Your task to perform on an android device: Google the capital of Uruguay Image 0: 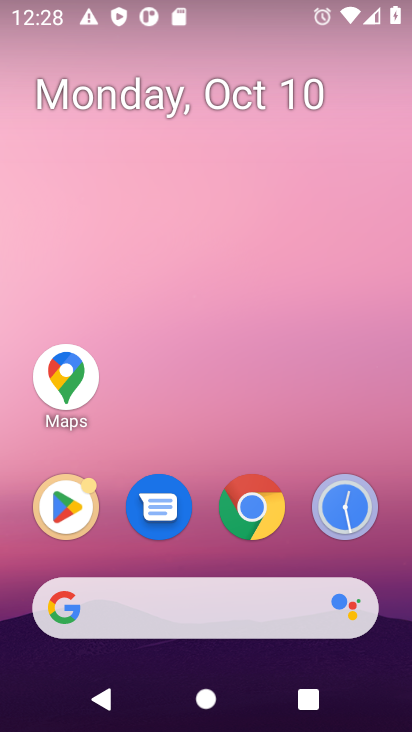
Step 0: drag from (397, 571) to (385, 123)
Your task to perform on an android device: Google the capital of Uruguay Image 1: 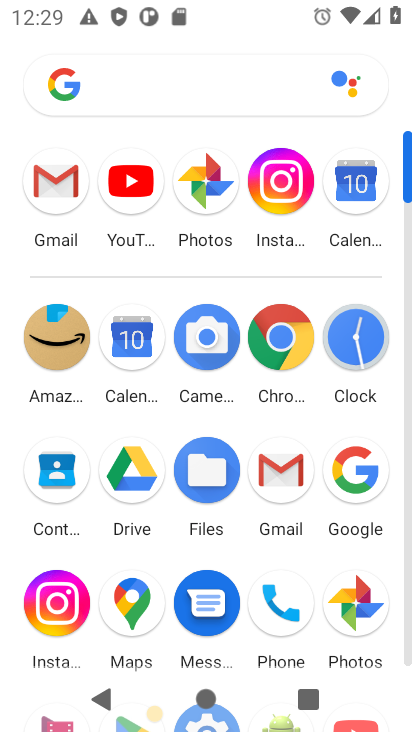
Step 1: press home button
Your task to perform on an android device: Google the capital of Uruguay Image 2: 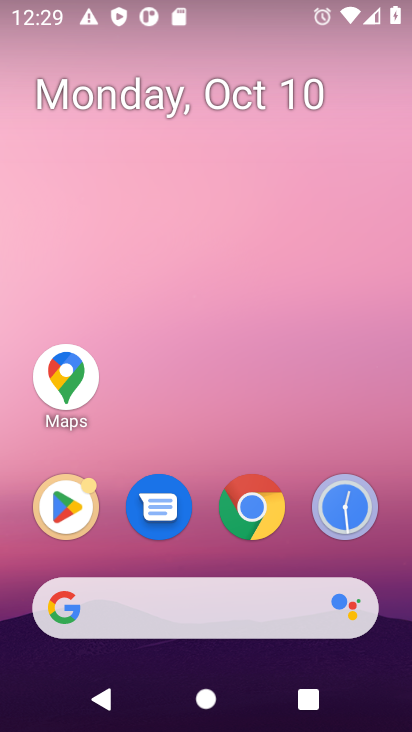
Step 2: click (263, 597)
Your task to perform on an android device: Google the capital of Uruguay Image 3: 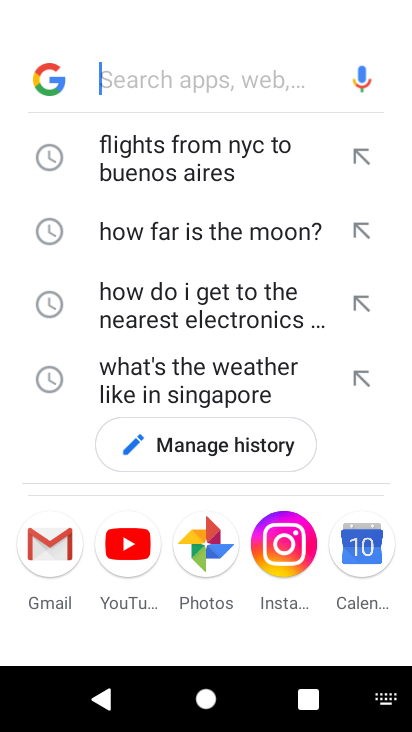
Step 3: type "capital of Uruguay"
Your task to perform on an android device: Google the capital of Uruguay Image 4: 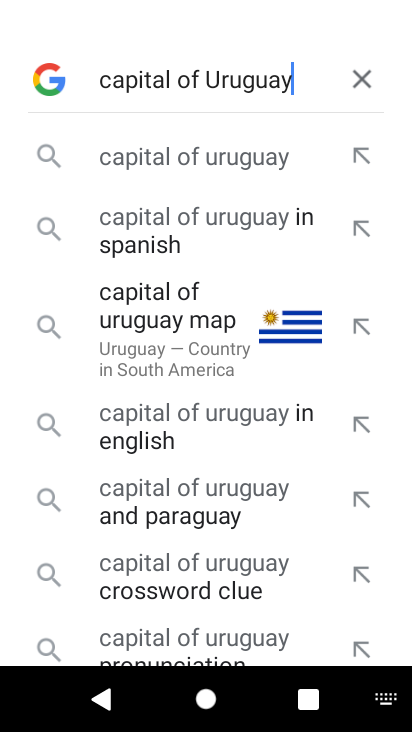
Step 4: press enter
Your task to perform on an android device: Google the capital of Uruguay Image 5: 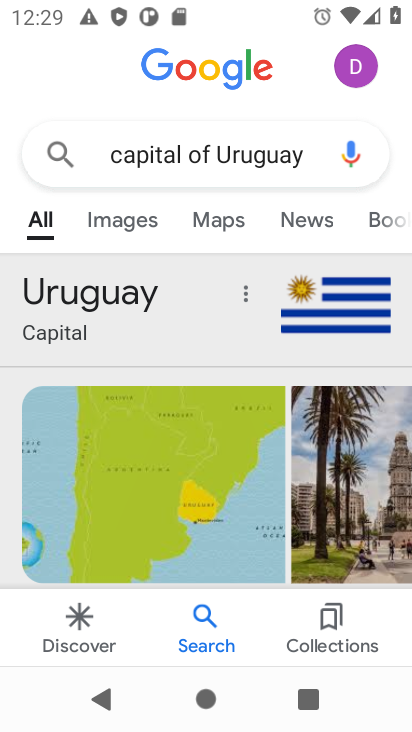
Step 5: task complete